Your task to perform on an android device: Open calendar and show me the third week of next month Image 0: 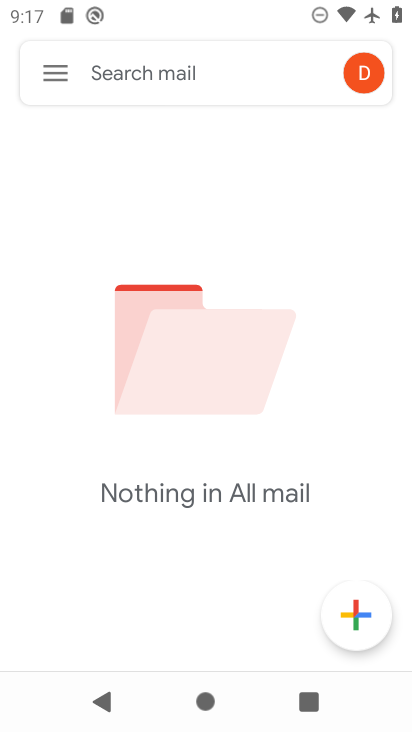
Step 0: press home button
Your task to perform on an android device: Open calendar and show me the third week of next month Image 1: 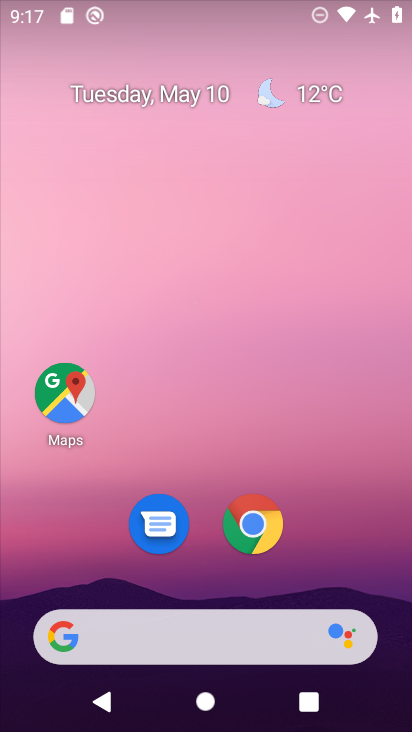
Step 1: drag from (202, 556) to (204, 126)
Your task to perform on an android device: Open calendar and show me the third week of next month Image 2: 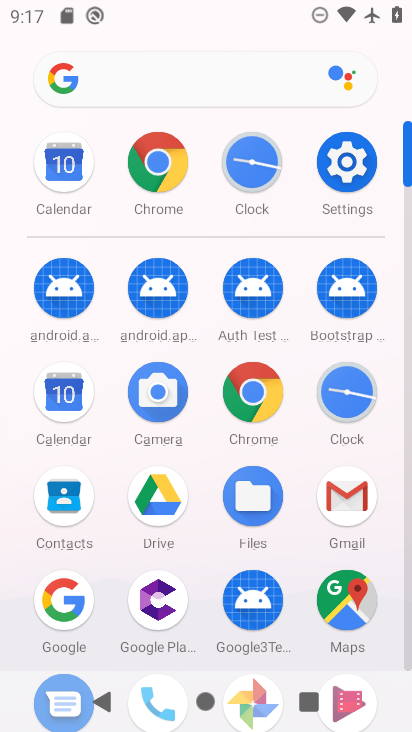
Step 2: click (59, 164)
Your task to perform on an android device: Open calendar and show me the third week of next month Image 3: 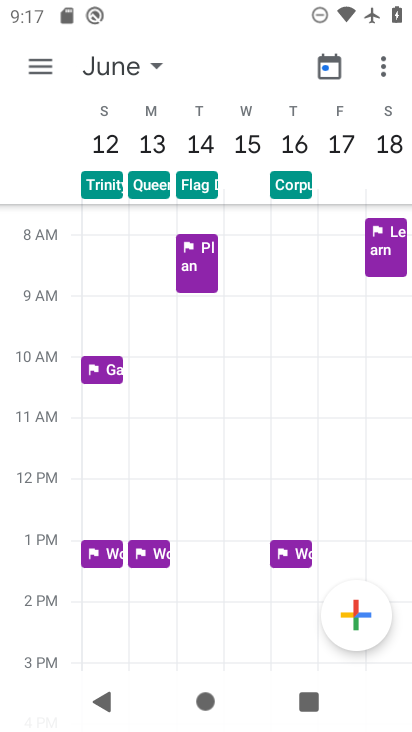
Step 3: task complete